Your task to perform on an android device: snooze an email in the gmail app Image 0: 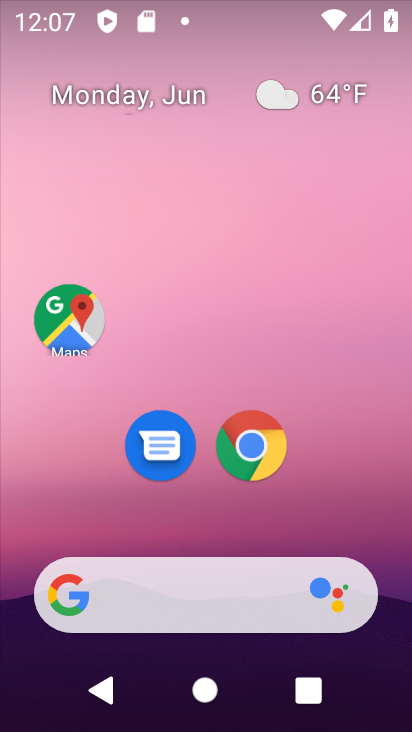
Step 0: drag from (222, 650) to (300, 43)
Your task to perform on an android device: snooze an email in the gmail app Image 1: 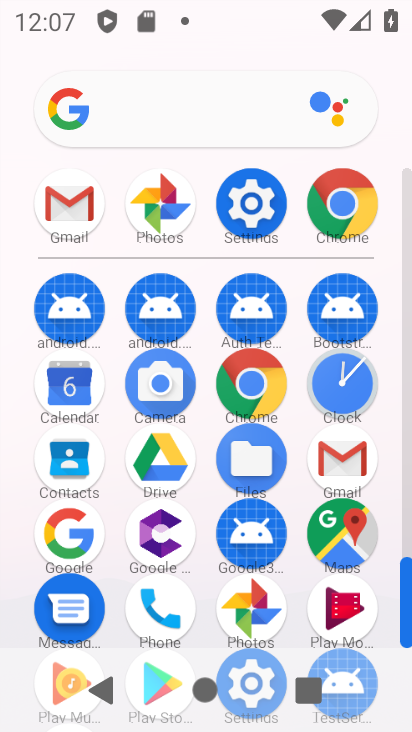
Step 1: click (338, 458)
Your task to perform on an android device: snooze an email in the gmail app Image 2: 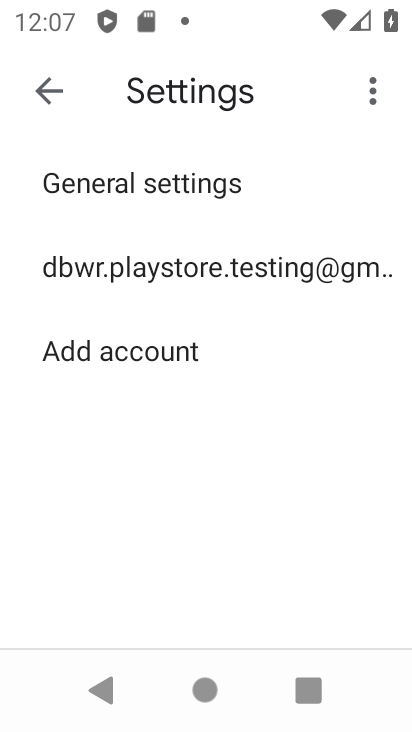
Step 2: press back button
Your task to perform on an android device: snooze an email in the gmail app Image 3: 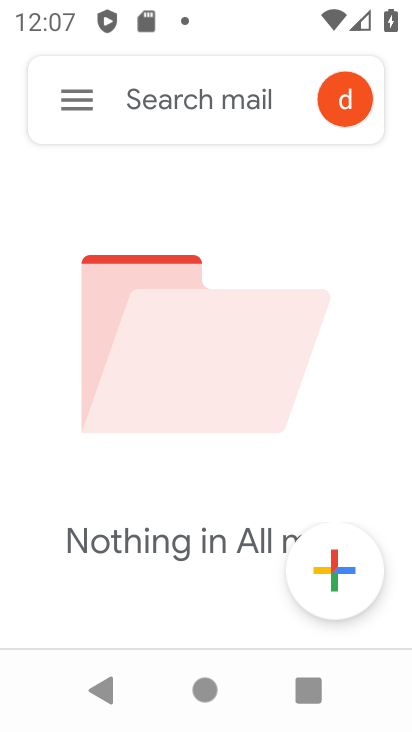
Step 3: click (68, 94)
Your task to perform on an android device: snooze an email in the gmail app Image 4: 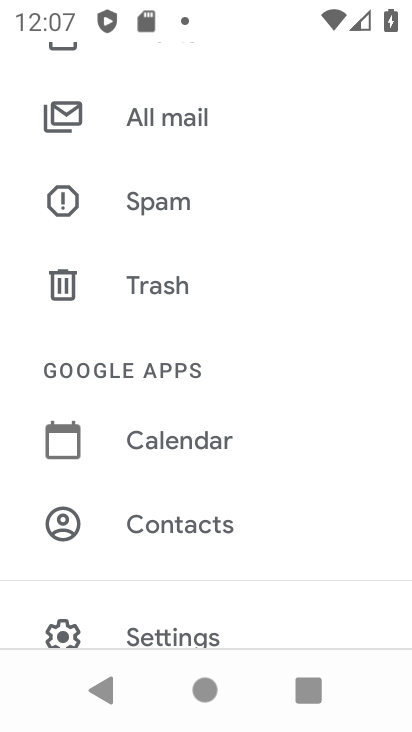
Step 4: drag from (207, 323) to (113, 612)
Your task to perform on an android device: snooze an email in the gmail app Image 5: 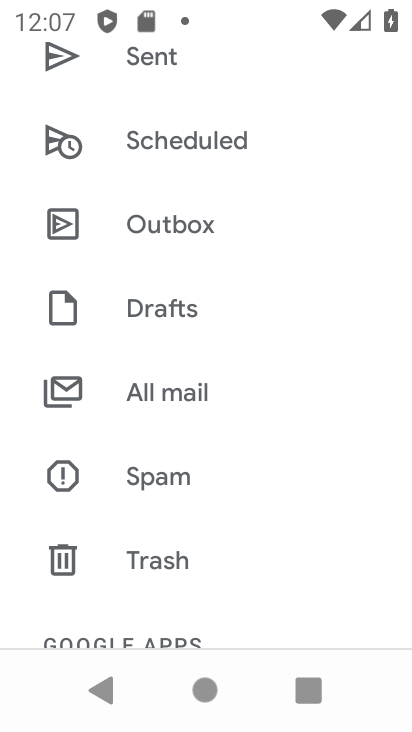
Step 5: drag from (150, 319) to (220, 730)
Your task to perform on an android device: snooze an email in the gmail app Image 6: 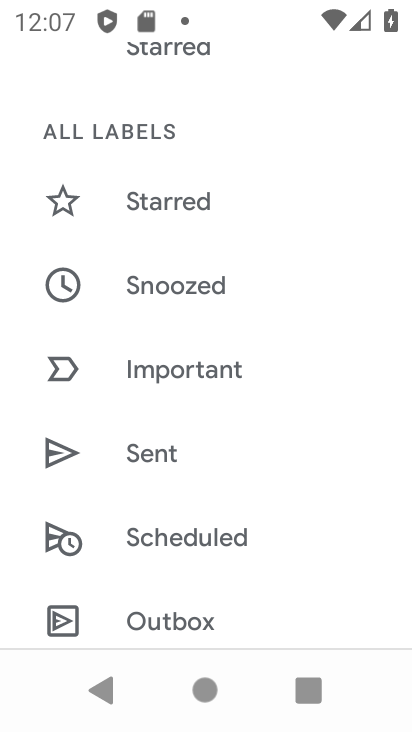
Step 6: click (215, 278)
Your task to perform on an android device: snooze an email in the gmail app Image 7: 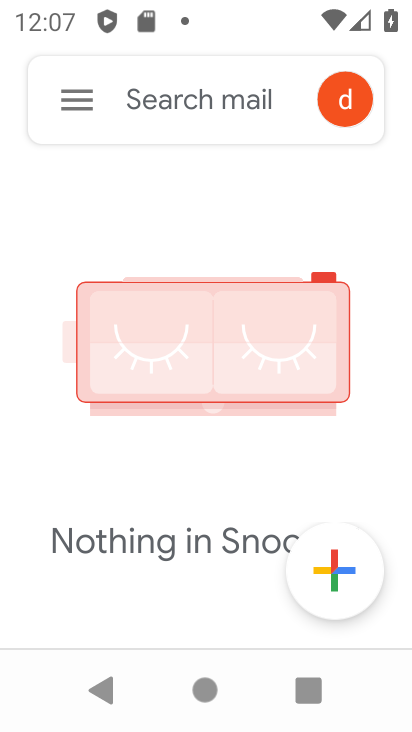
Step 7: task complete